Your task to perform on an android device: Play the last video I watched on Youtube Image 0: 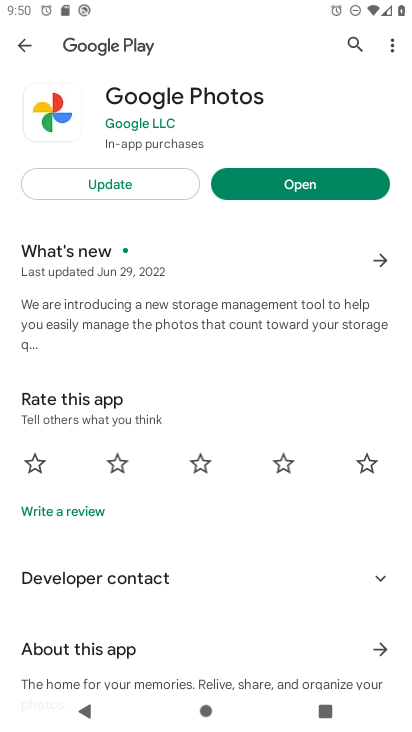
Step 0: press home button
Your task to perform on an android device: Play the last video I watched on Youtube Image 1: 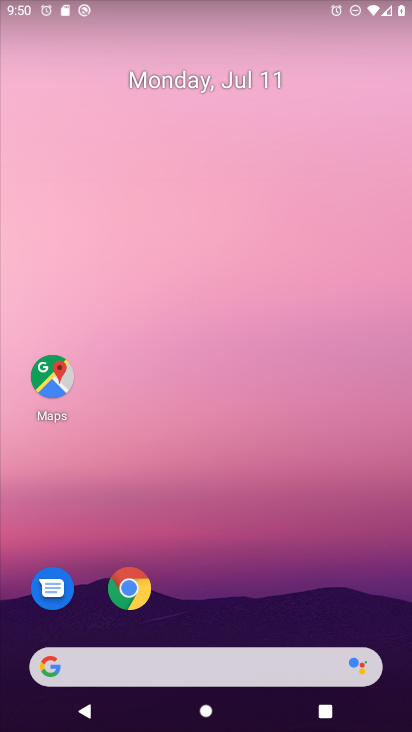
Step 1: drag from (205, 656) to (331, 198)
Your task to perform on an android device: Play the last video I watched on Youtube Image 2: 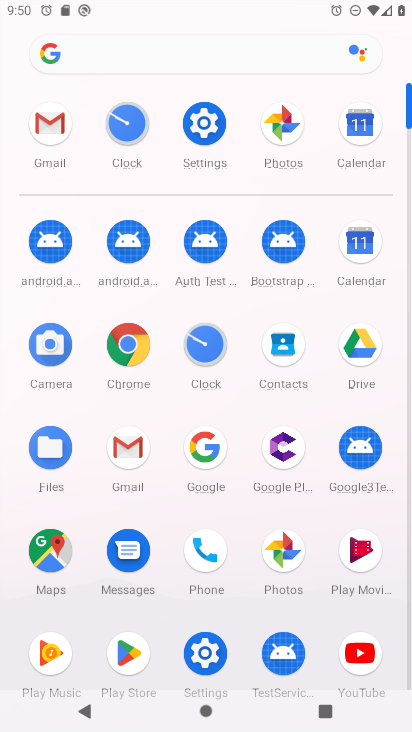
Step 2: click (366, 659)
Your task to perform on an android device: Play the last video I watched on Youtube Image 3: 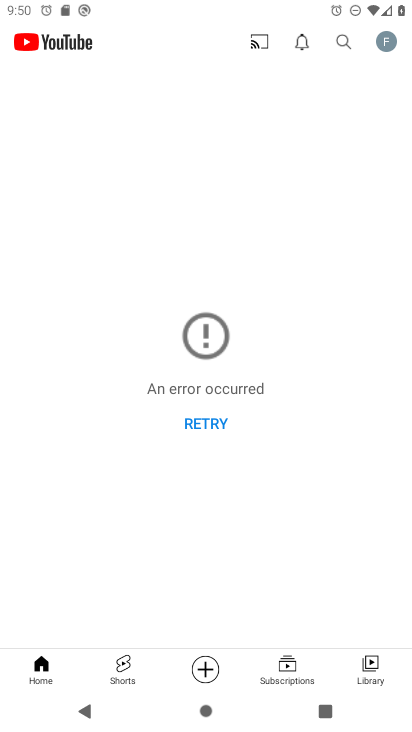
Step 3: click (206, 422)
Your task to perform on an android device: Play the last video I watched on Youtube Image 4: 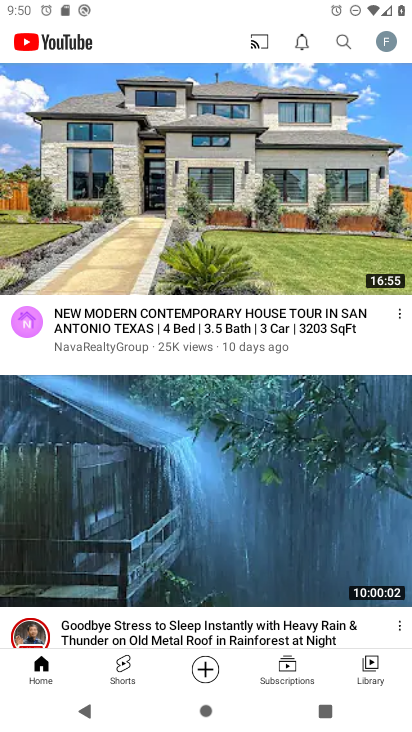
Step 4: click (373, 659)
Your task to perform on an android device: Play the last video I watched on Youtube Image 5: 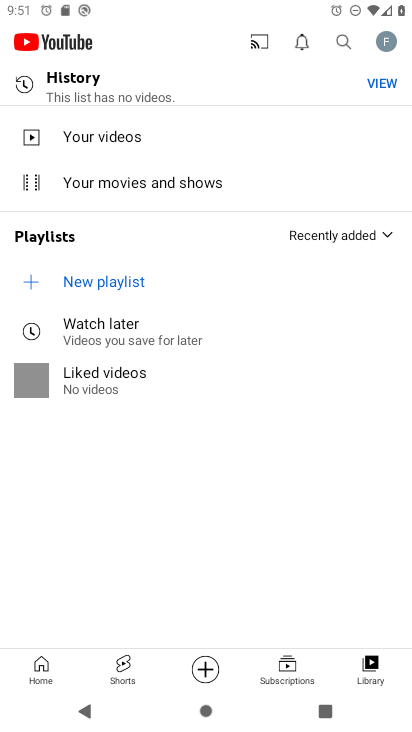
Step 5: task complete